Your task to perform on an android device: turn off improve location accuracy Image 0: 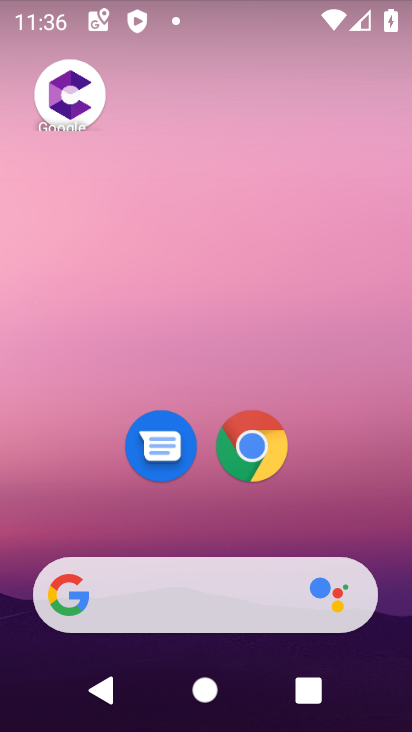
Step 0: drag from (337, 508) to (332, 191)
Your task to perform on an android device: turn off improve location accuracy Image 1: 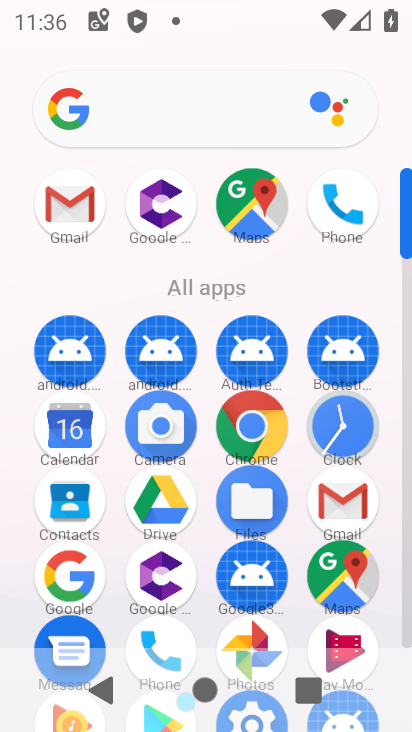
Step 1: drag from (241, 623) to (272, 340)
Your task to perform on an android device: turn off improve location accuracy Image 2: 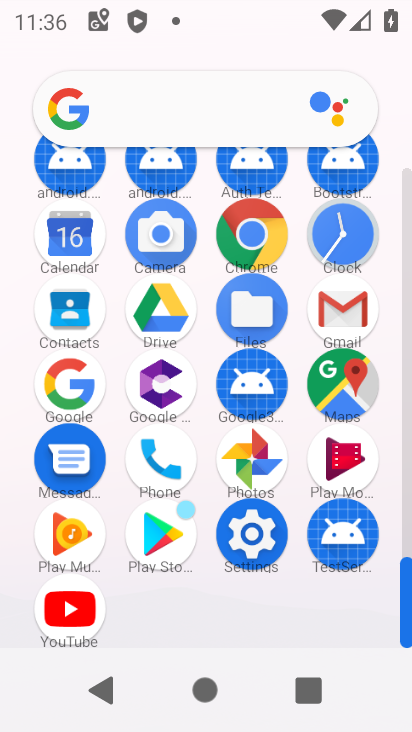
Step 2: click (258, 527)
Your task to perform on an android device: turn off improve location accuracy Image 3: 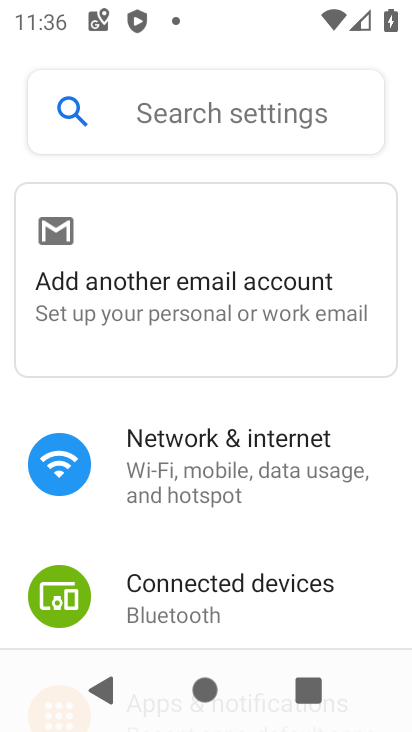
Step 3: drag from (190, 594) to (227, 360)
Your task to perform on an android device: turn off improve location accuracy Image 4: 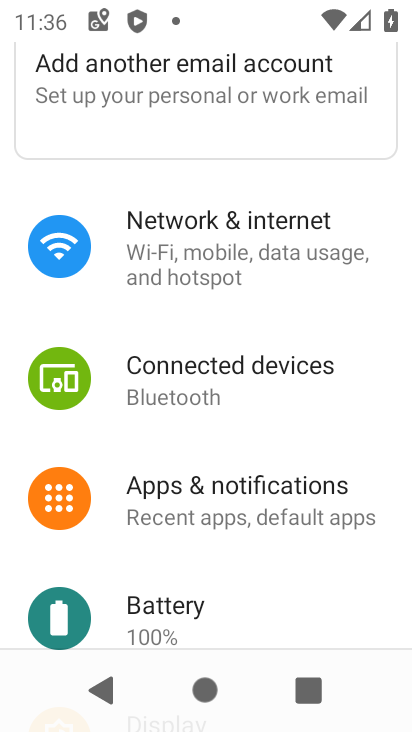
Step 4: drag from (175, 581) to (210, 282)
Your task to perform on an android device: turn off improve location accuracy Image 5: 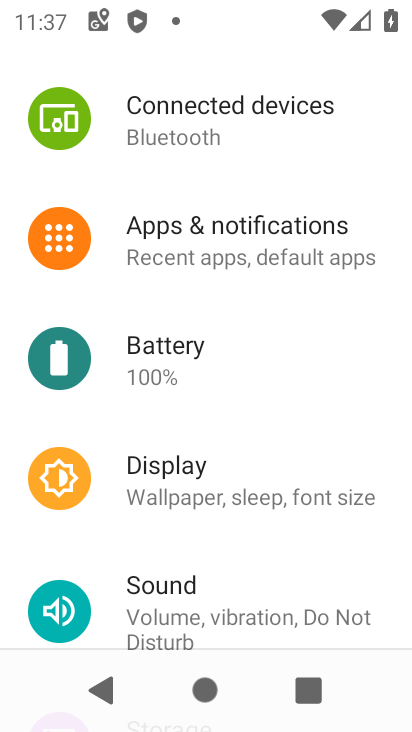
Step 5: drag from (166, 588) to (213, 292)
Your task to perform on an android device: turn off improve location accuracy Image 6: 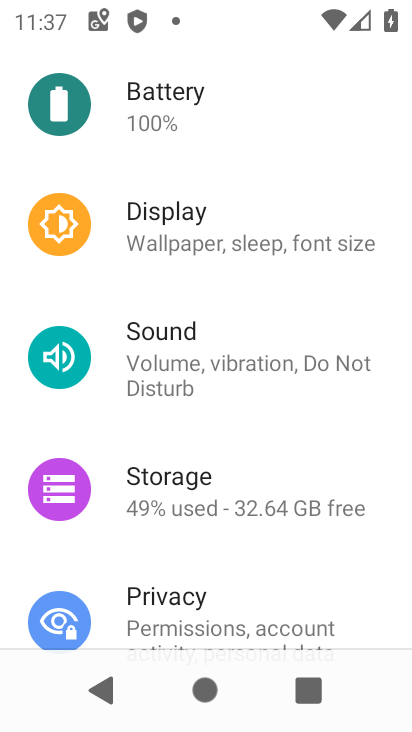
Step 6: drag from (181, 355) to (222, 139)
Your task to perform on an android device: turn off improve location accuracy Image 7: 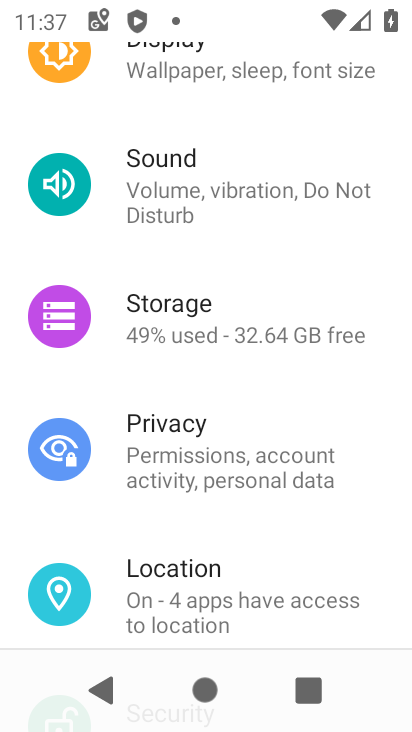
Step 7: click (161, 585)
Your task to perform on an android device: turn off improve location accuracy Image 8: 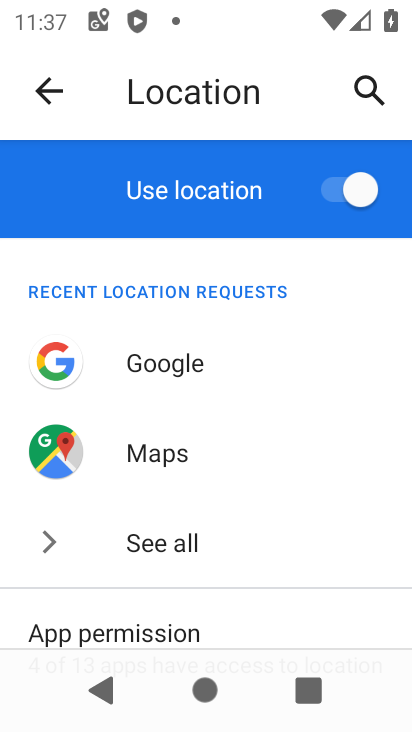
Step 8: drag from (252, 557) to (296, 299)
Your task to perform on an android device: turn off improve location accuracy Image 9: 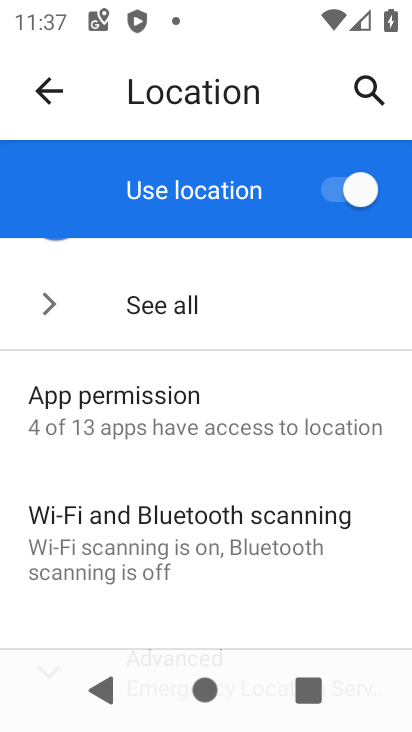
Step 9: drag from (193, 551) to (256, 225)
Your task to perform on an android device: turn off improve location accuracy Image 10: 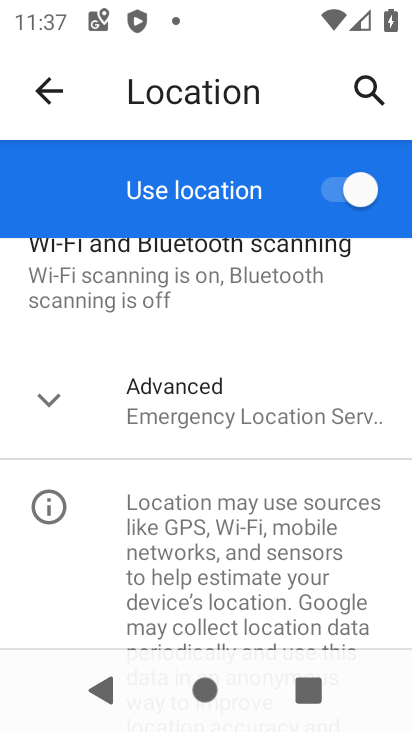
Step 10: click (179, 418)
Your task to perform on an android device: turn off improve location accuracy Image 11: 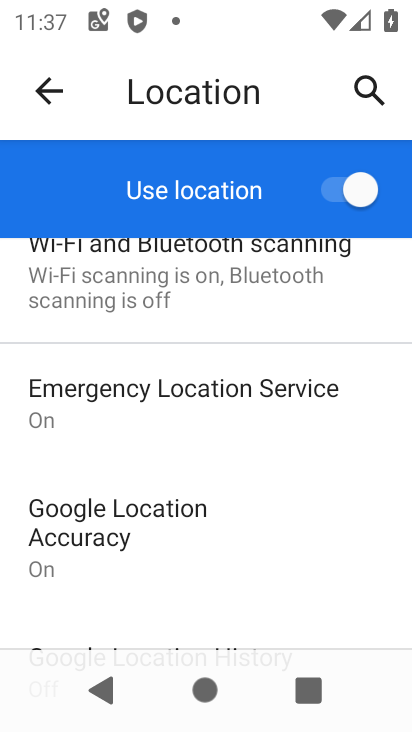
Step 11: drag from (228, 545) to (215, 506)
Your task to perform on an android device: turn off improve location accuracy Image 12: 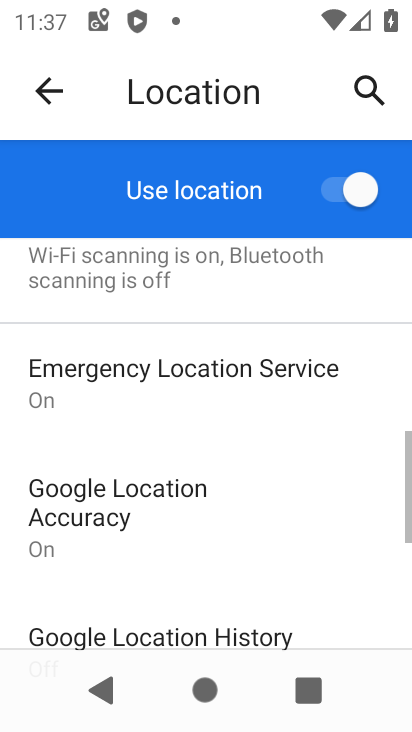
Step 12: click (215, 506)
Your task to perform on an android device: turn off improve location accuracy Image 13: 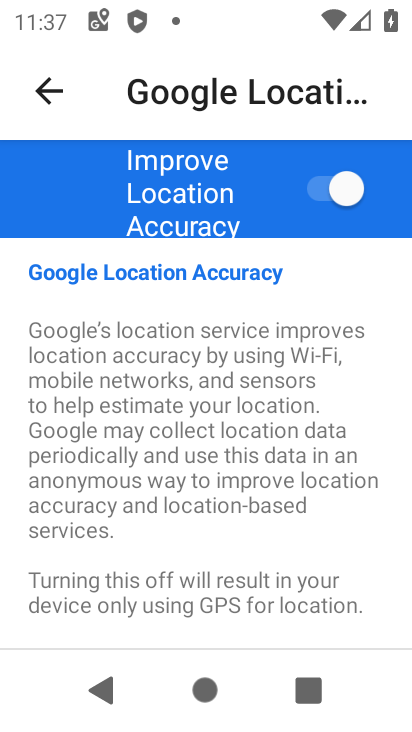
Step 13: click (315, 178)
Your task to perform on an android device: turn off improve location accuracy Image 14: 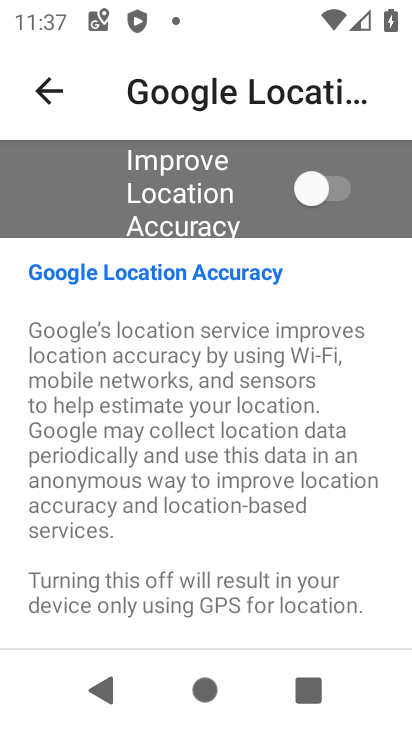
Step 14: task complete